Your task to perform on an android device: Open notification settings Image 0: 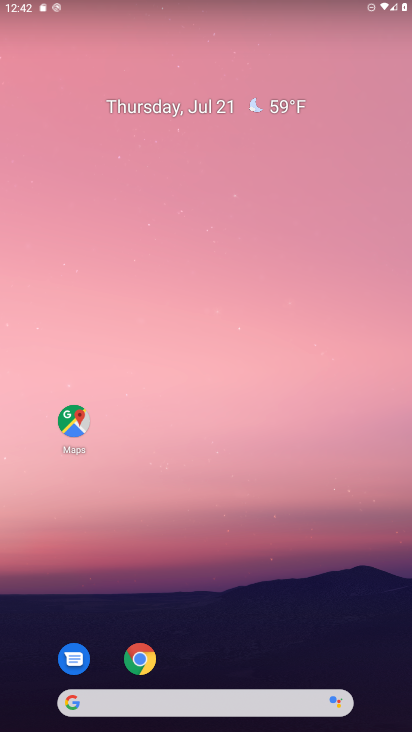
Step 0: press home button
Your task to perform on an android device: Open notification settings Image 1: 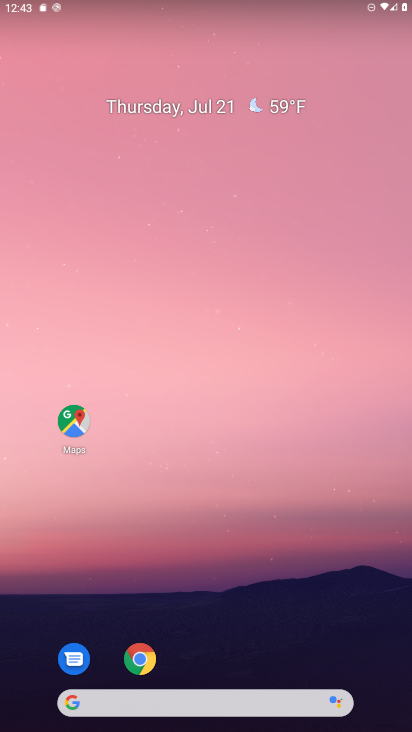
Step 1: drag from (40, 572) to (244, 71)
Your task to perform on an android device: Open notification settings Image 2: 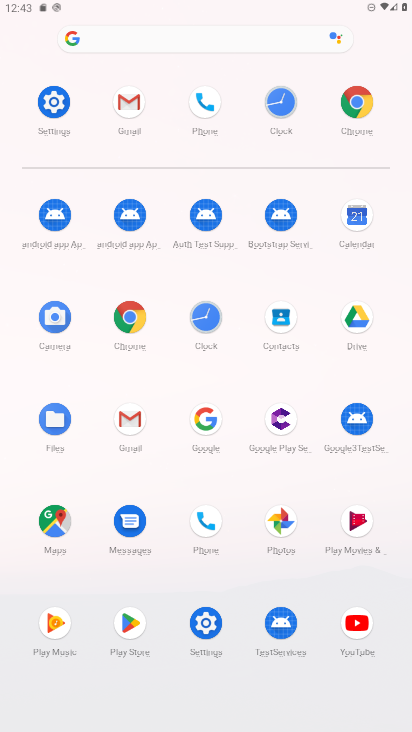
Step 2: click (58, 102)
Your task to perform on an android device: Open notification settings Image 3: 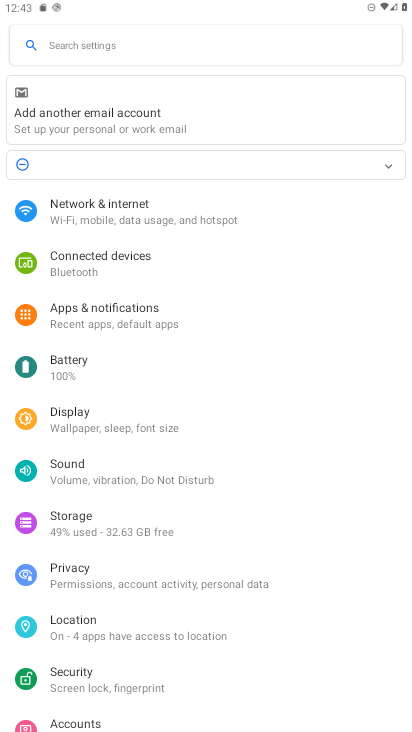
Step 3: drag from (109, 217) to (116, 674)
Your task to perform on an android device: Open notification settings Image 4: 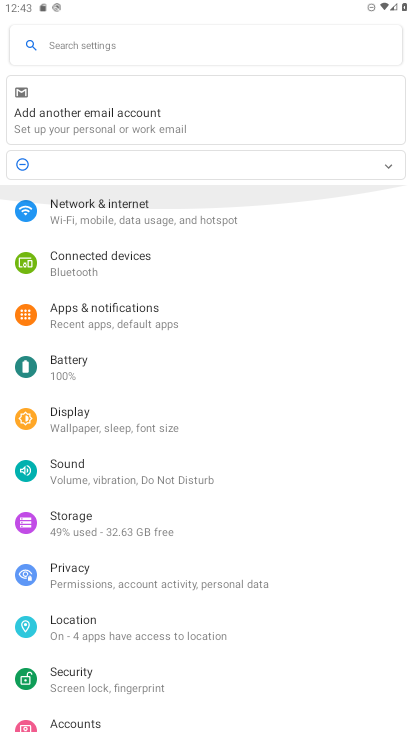
Step 4: click (110, 330)
Your task to perform on an android device: Open notification settings Image 5: 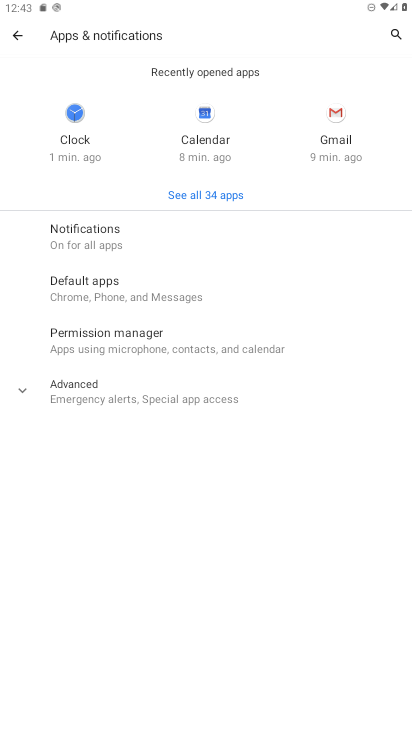
Step 5: click (139, 238)
Your task to perform on an android device: Open notification settings Image 6: 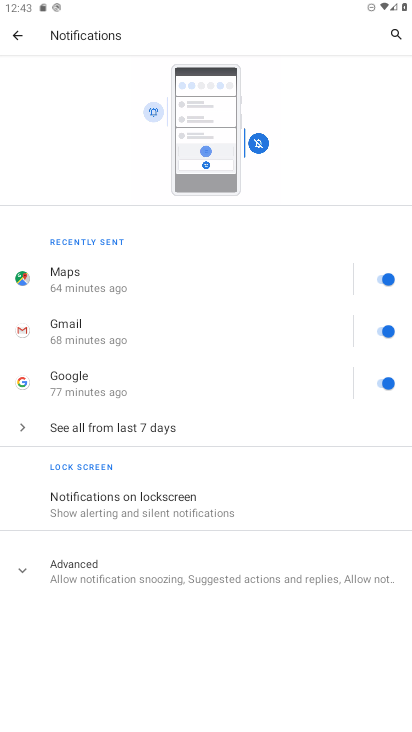
Step 6: task complete